Your task to perform on an android device: check android version Image 0: 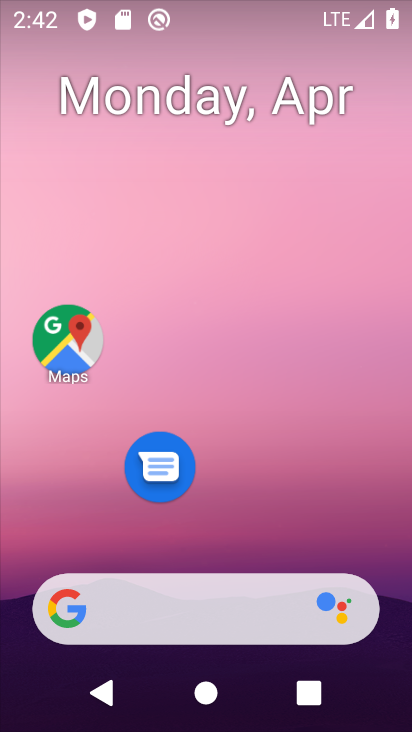
Step 0: drag from (262, 559) to (264, 148)
Your task to perform on an android device: check android version Image 1: 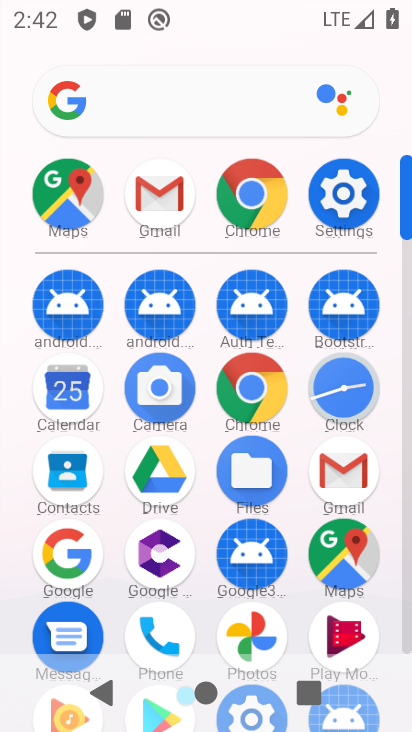
Step 1: click (356, 201)
Your task to perform on an android device: check android version Image 2: 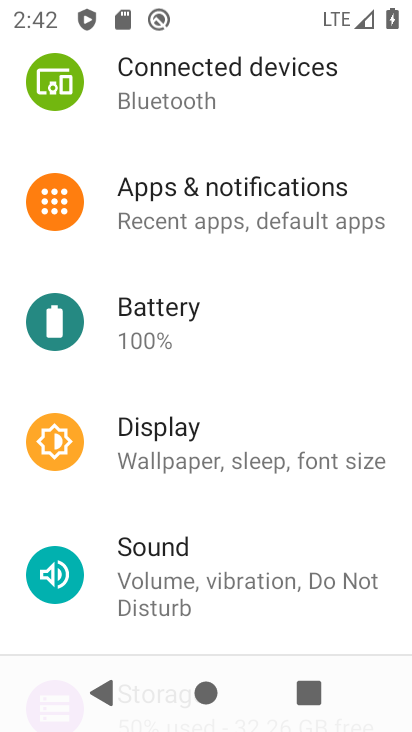
Step 2: drag from (249, 612) to (313, 301)
Your task to perform on an android device: check android version Image 3: 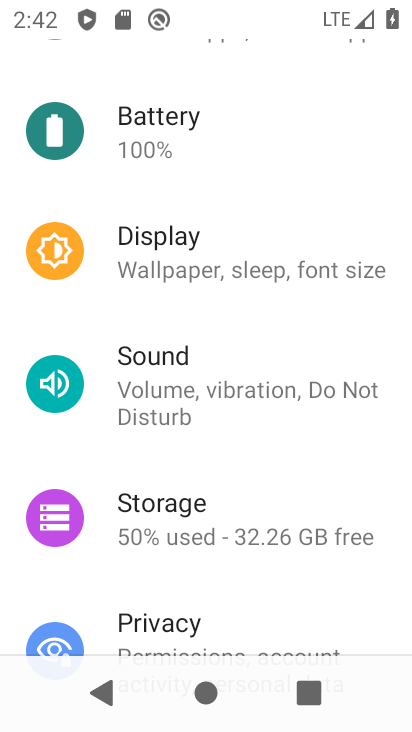
Step 3: drag from (285, 574) to (343, 344)
Your task to perform on an android device: check android version Image 4: 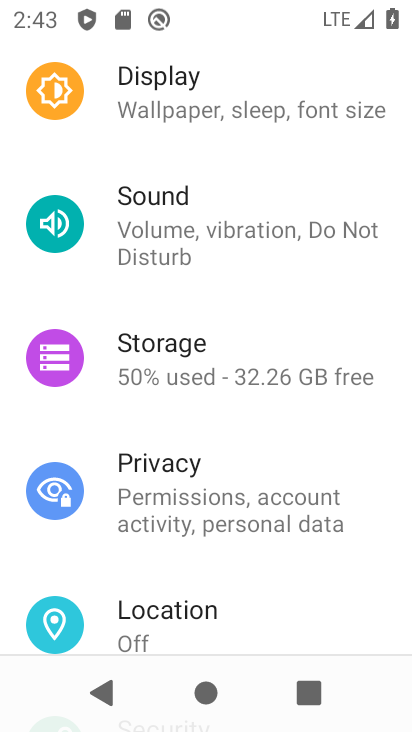
Step 4: drag from (293, 581) to (339, 319)
Your task to perform on an android device: check android version Image 5: 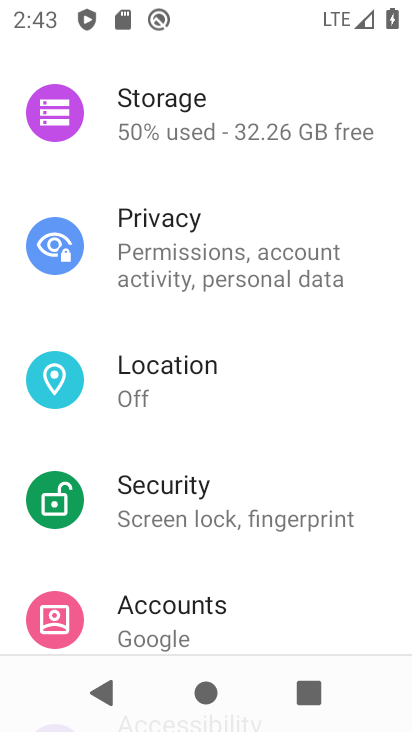
Step 5: drag from (209, 554) to (197, 323)
Your task to perform on an android device: check android version Image 6: 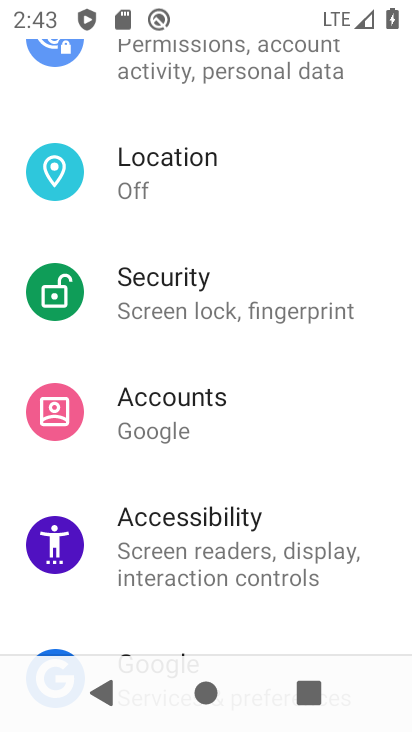
Step 6: drag from (242, 523) to (278, 276)
Your task to perform on an android device: check android version Image 7: 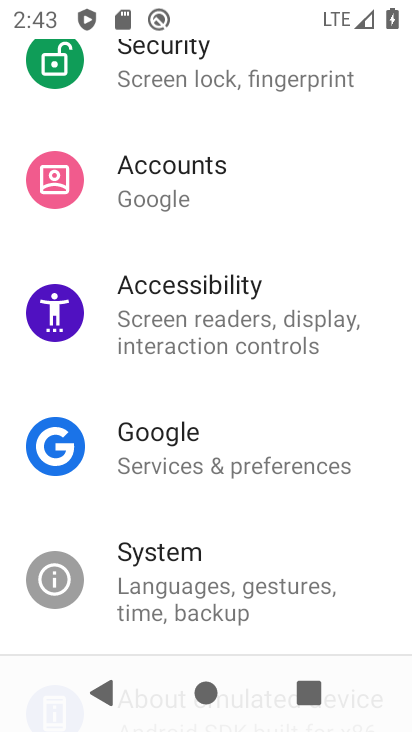
Step 7: drag from (177, 585) to (217, 187)
Your task to perform on an android device: check android version Image 8: 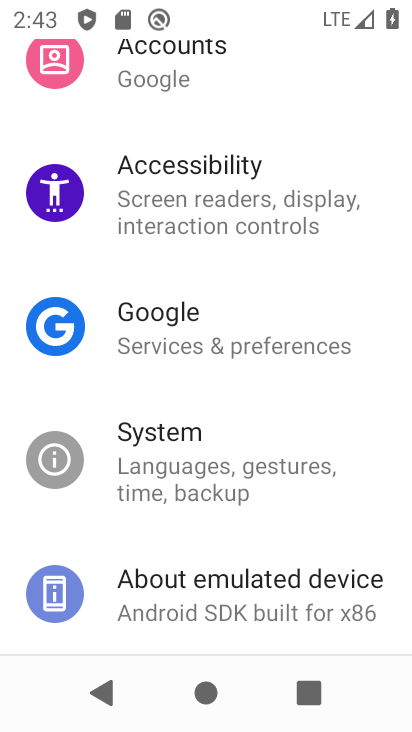
Step 8: click (117, 606)
Your task to perform on an android device: check android version Image 9: 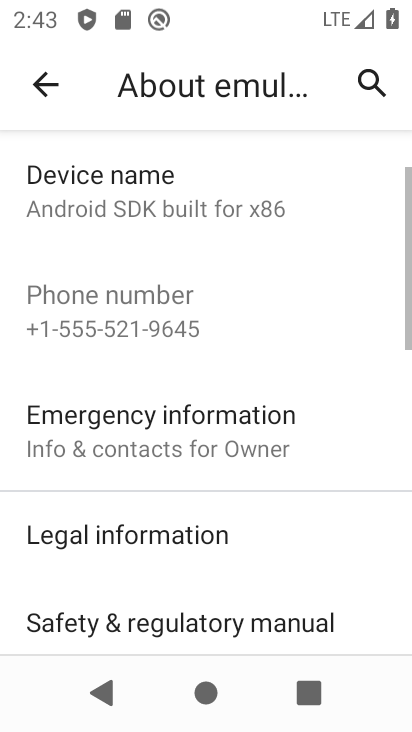
Step 9: drag from (231, 487) to (226, 180)
Your task to perform on an android device: check android version Image 10: 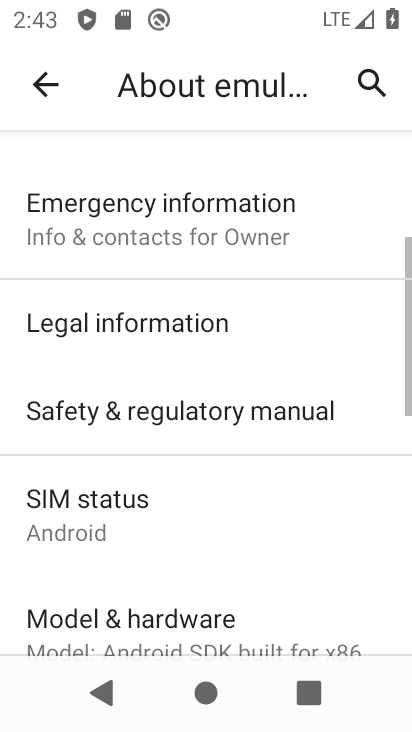
Step 10: drag from (230, 536) to (223, 231)
Your task to perform on an android device: check android version Image 11: 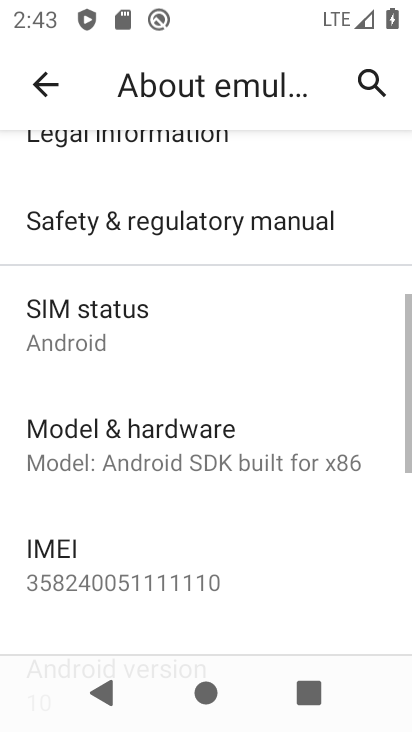
Step 11: drag from (201, 515) to (111, 230)
Your task to perform on an android device: check android version Image 12: 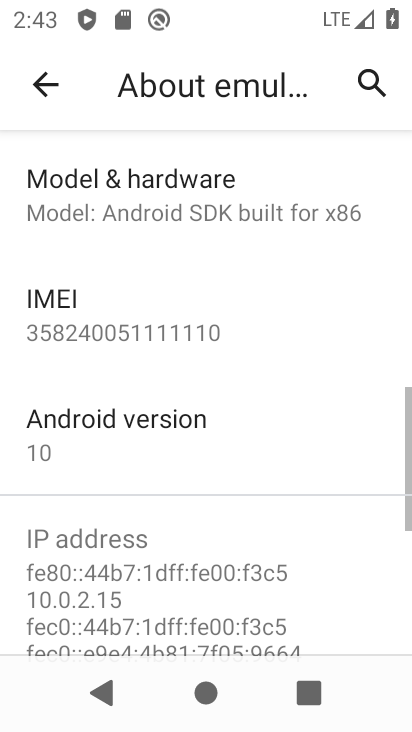
Step 12: click (124, 450)
Your task to perform on an android device: check android version Image 13: 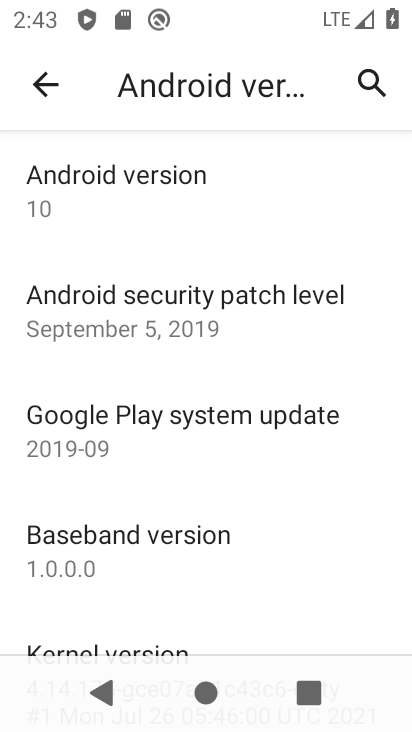
Step 13: task complete